Your task to perform on an android device: Open Google Chrome Image 0: 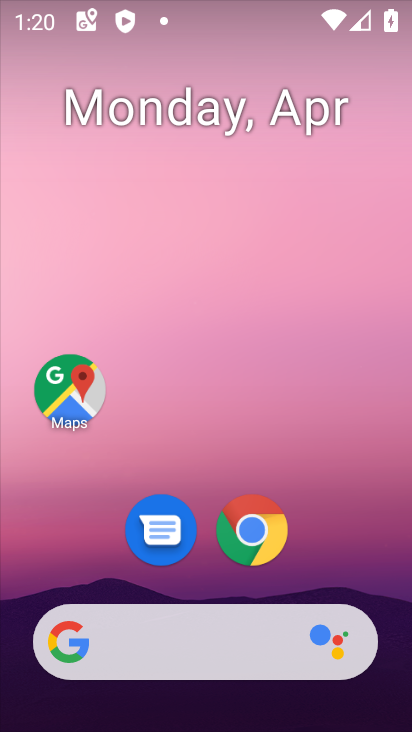
Step 0: click (245, 536)
Your task to perform on an android device: Open Google Chrome Image 1: 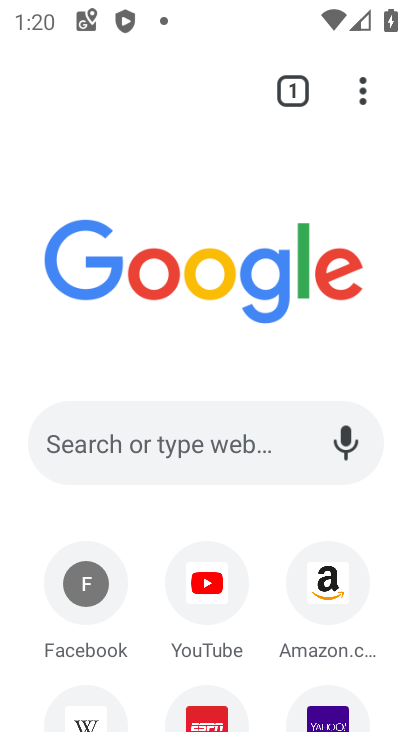
Step 1: task complete